Your task to perform on an android device: change the clock display to digital Image 0: 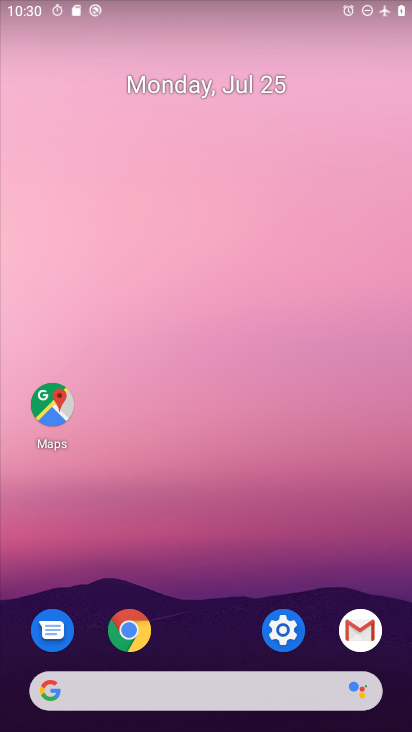
Step 0: drag from (245, 699) to (174, 214)
Your task to perform on an android device: change the clock display to digital Image 1: 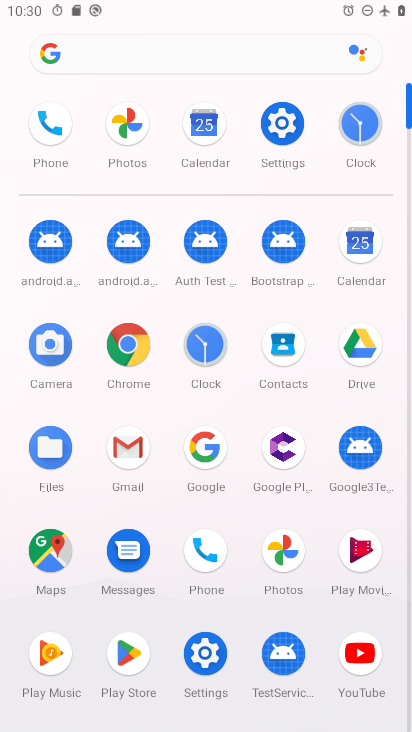
Step 1: click (193, 352)
Your task to perform on an android device: change the clock display to digital Image 2: 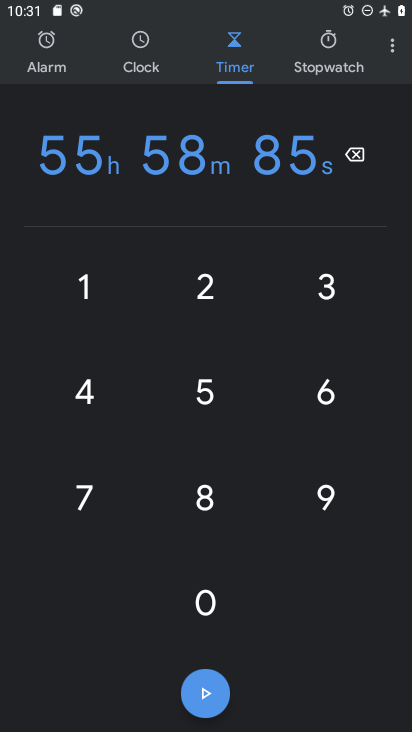
Step 2: click (391, 54)
Your task to perform on an android device: change the clock display to digital Image 3: 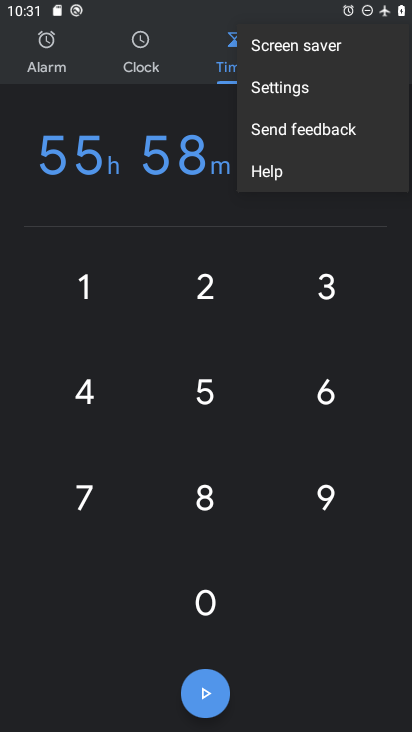
Step 3: click (301, 91)
Your task to perform on an android device: change the clock display to digital Image 4: 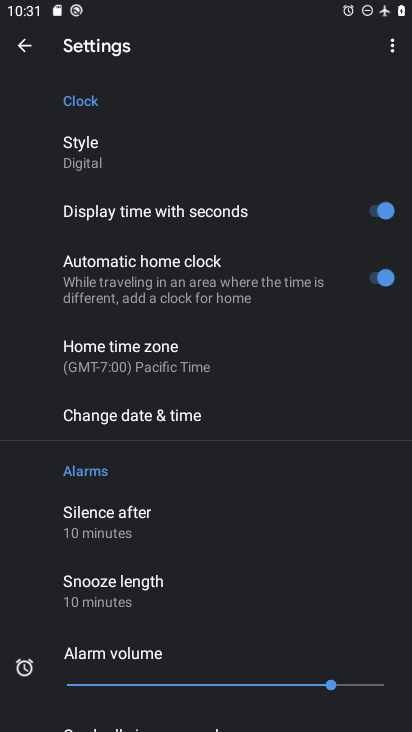
Step 4: click (116, 171)
Your task to perform on an android device: change the clock display to digital Image 5: 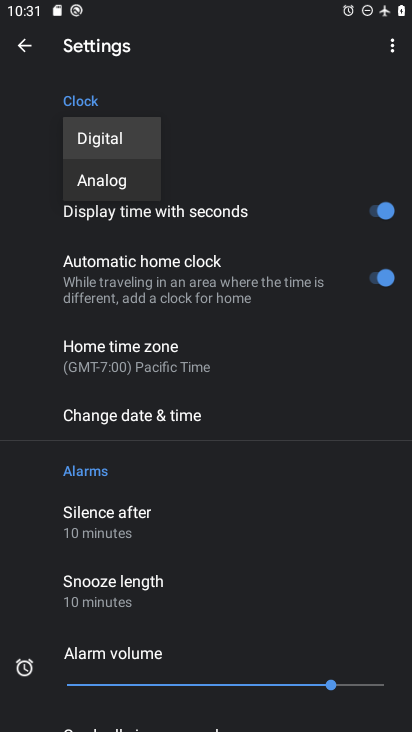
Step 5: click (106, 146)
Your task to perform on an android device: change the clock display to digital Image 6: 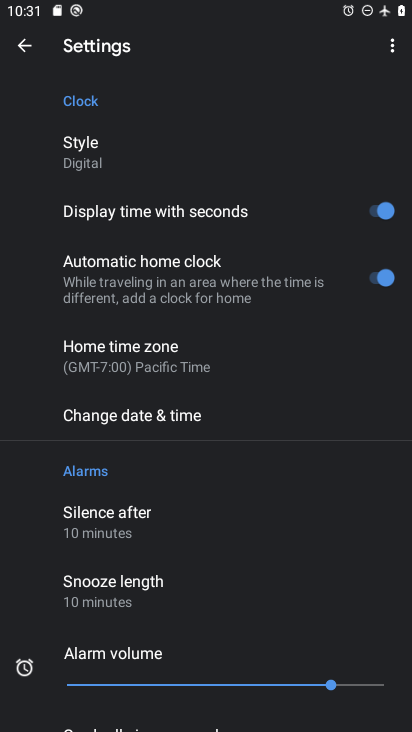
Step 6: task complete